Your task to perform on an android device: Go to wifi settings Image 0: 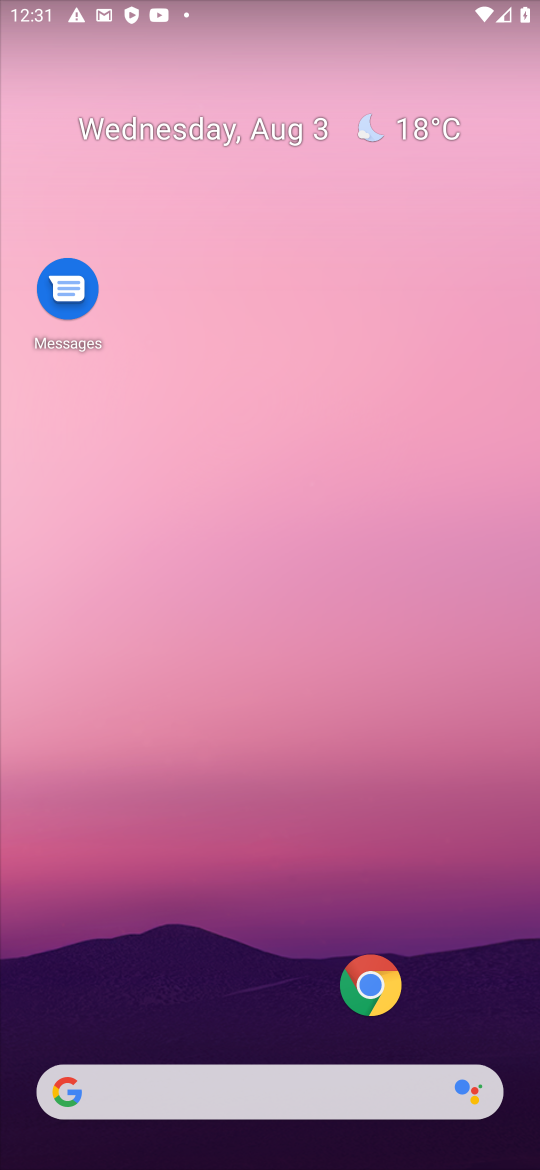
Step 0: drag from (300, 1023) to (373, 18)
Your task to perform on an android device: Go to wifi settings Image 1: 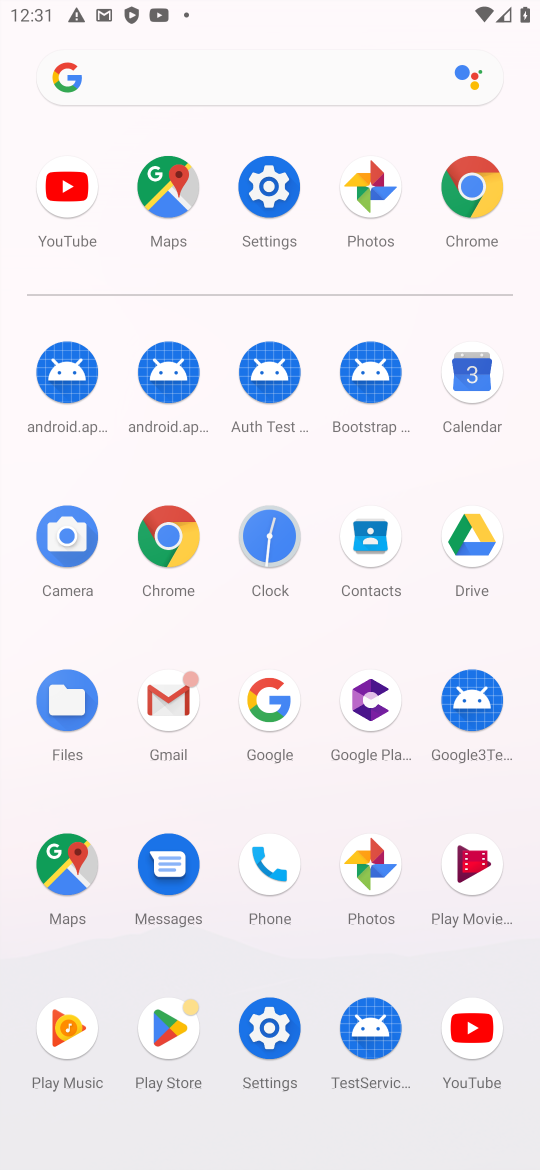
Step 1: click (267, 214)
Your task to perform on an android device: Go to wifi settings Image 2: 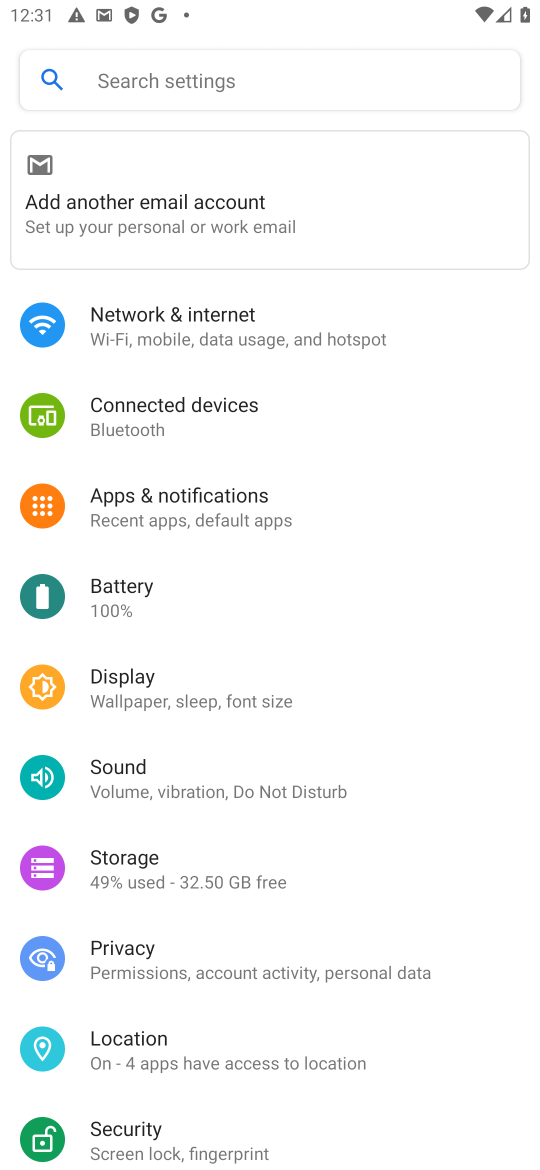
Step 2: click (252, 318)
Your task to perform on an android device: Go to wifi settings Image 3: 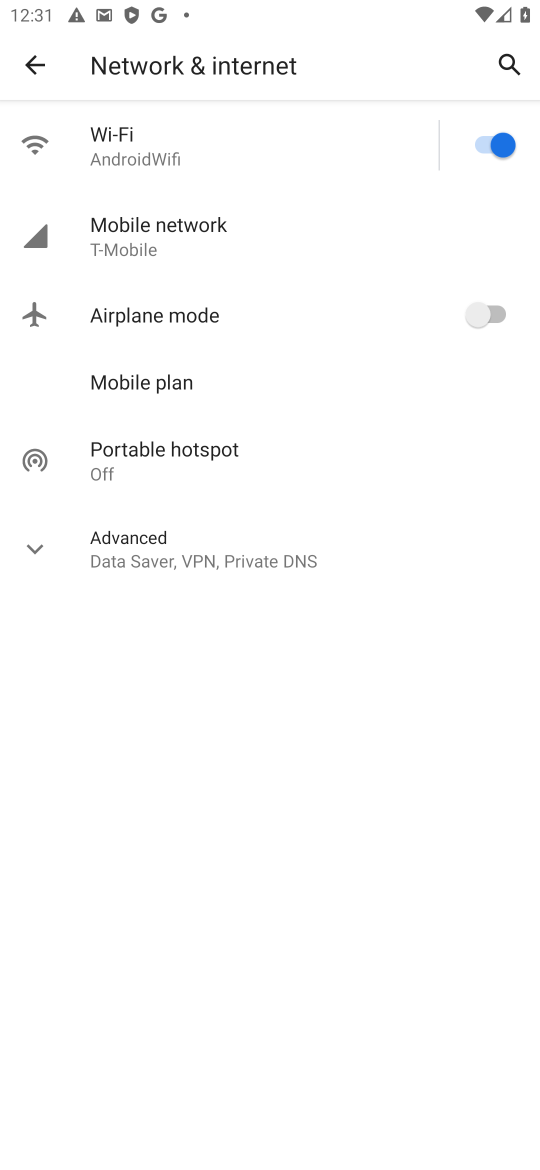
Step 3: task complete